Your task to perform on an android device: Open eBay Image 0: 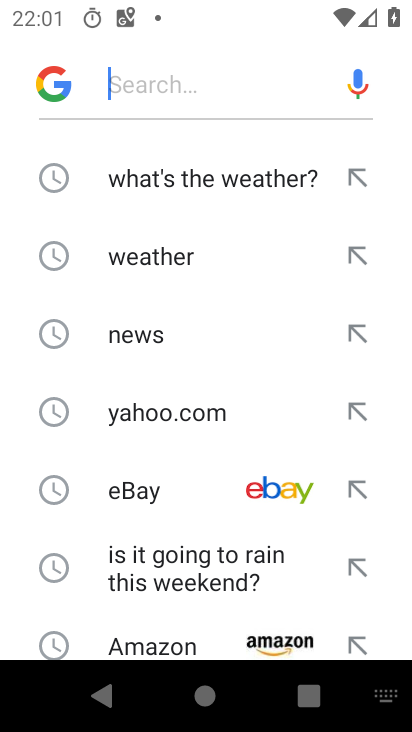
Step 0: click (220, 501)
Your task to perform on an android device: Open eBay Image 1: 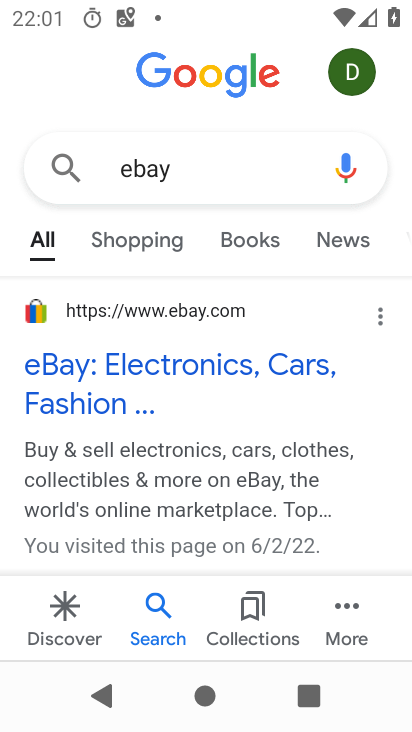
Step 1: click (119, 353)
Your task to perform on an android device: Open eBay Image 2: 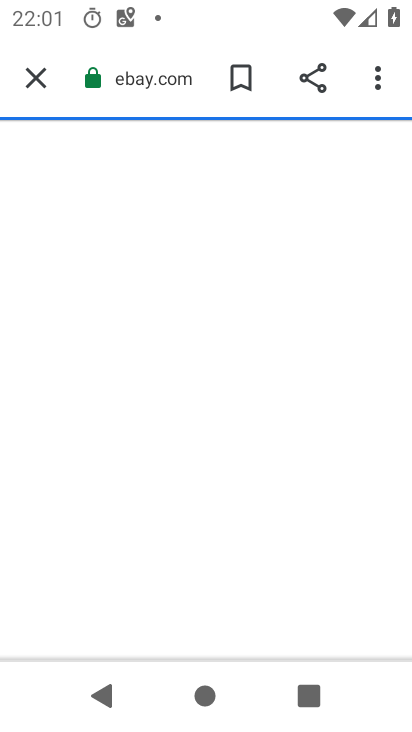
Step 2: task complete